Your task to perform on an android device: Search for pizza restaurants on Maps Image 0: 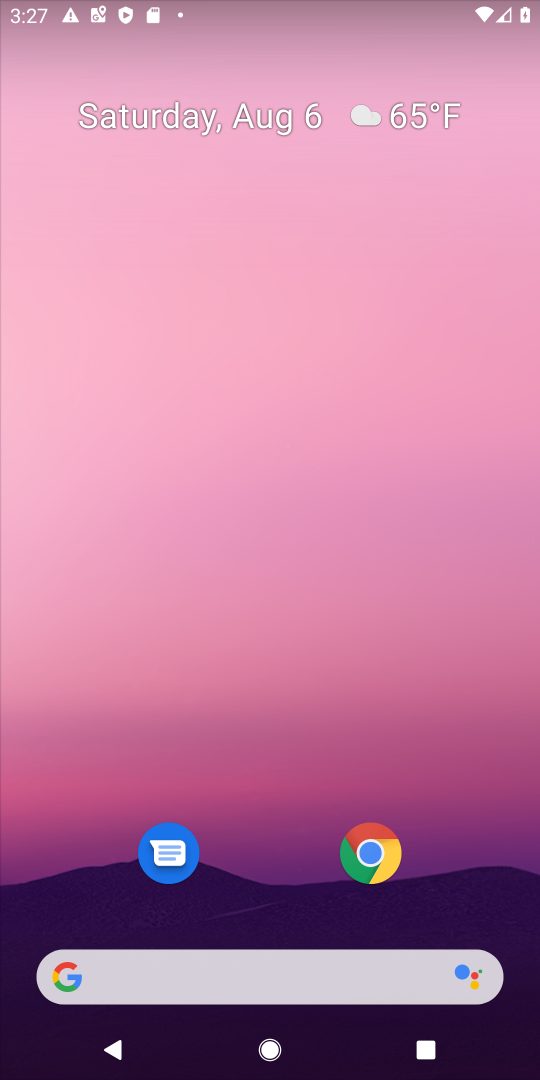
Step 0: drag from (311, 943) to (304, 65)
Your task to perform on an android device: Search for pizza restaurants on Maps Image 1: 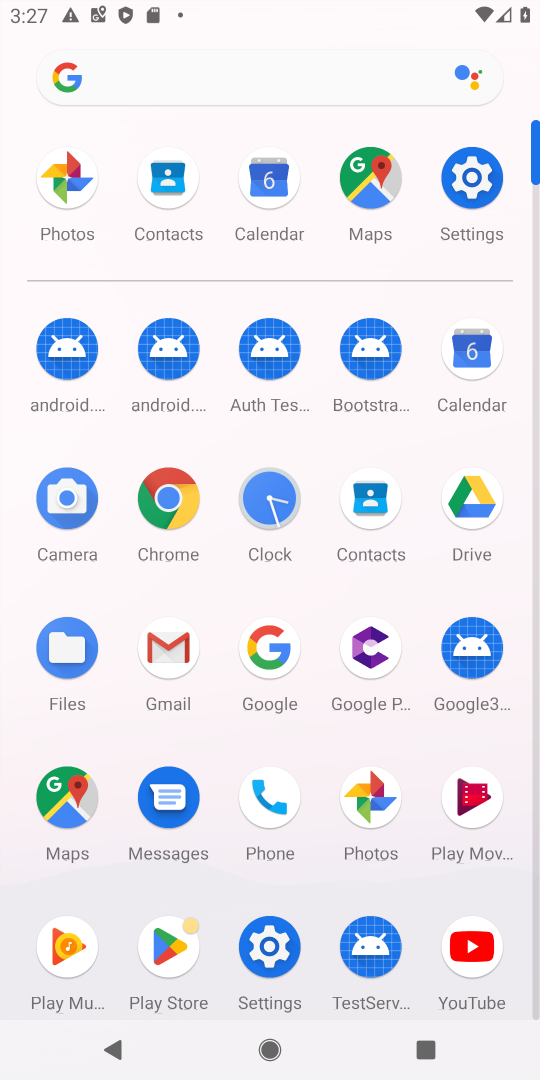
Step 1: click (372, 179)
Your task to perform on an android device: Search for pizza restaurants on Maps Image 2: 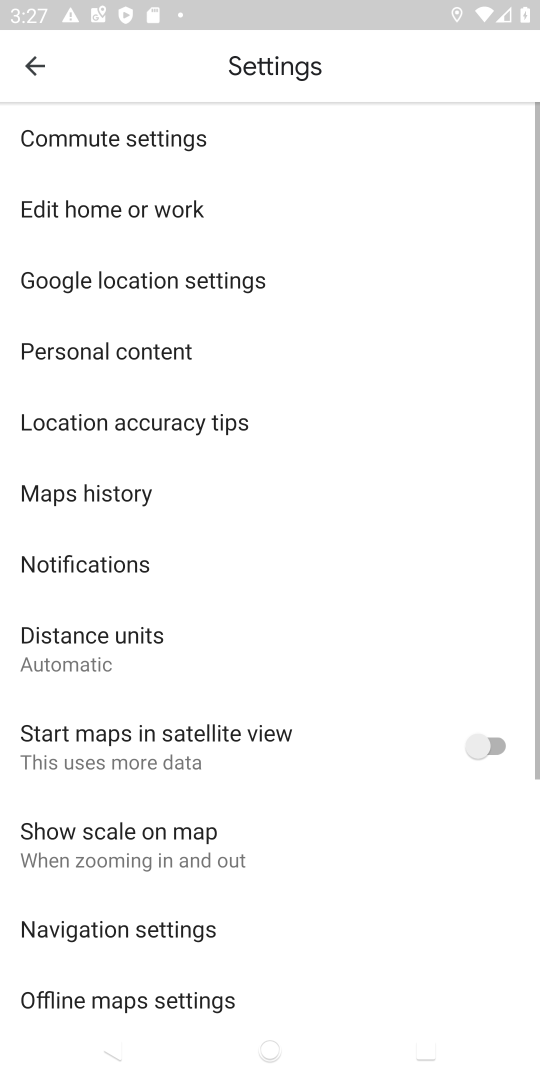
Step 2: click (27, 55)
Your task to perform on an android device: Search for pizza restaurants on Maps Image 3: 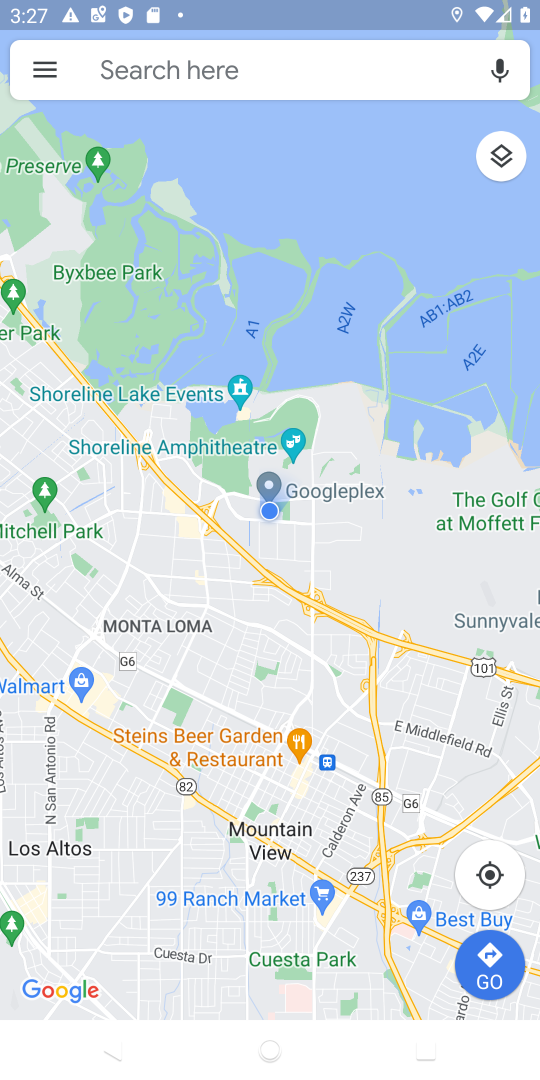
Step 3: click (269, 79)
Your task to perform on an android device: Search for pizza restaurants on Maps Image 4: 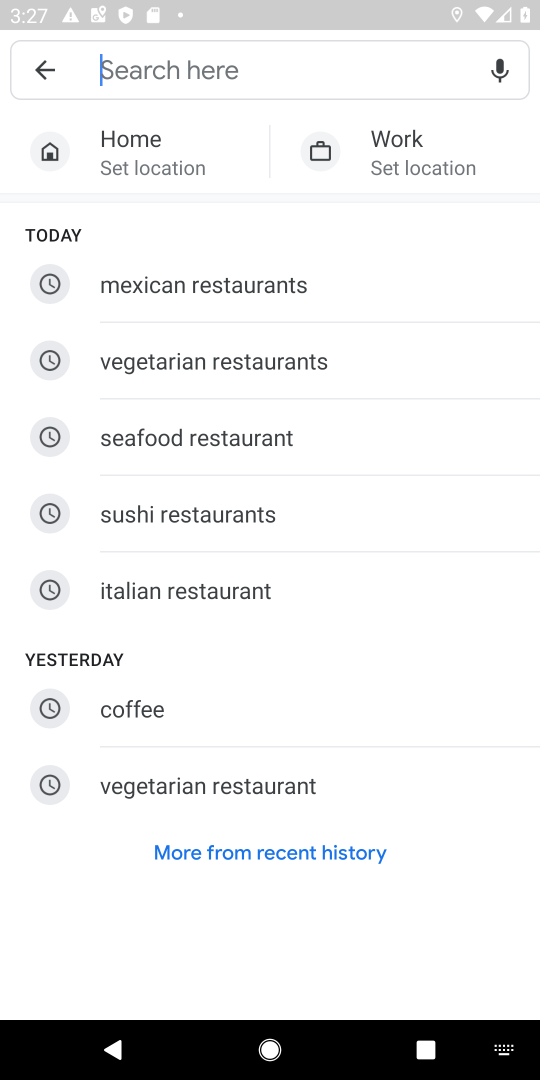
Step 4: type "pizza restaurants"
Your task to perform on an android device: Search for pizza restaurants on Maps Image 5: 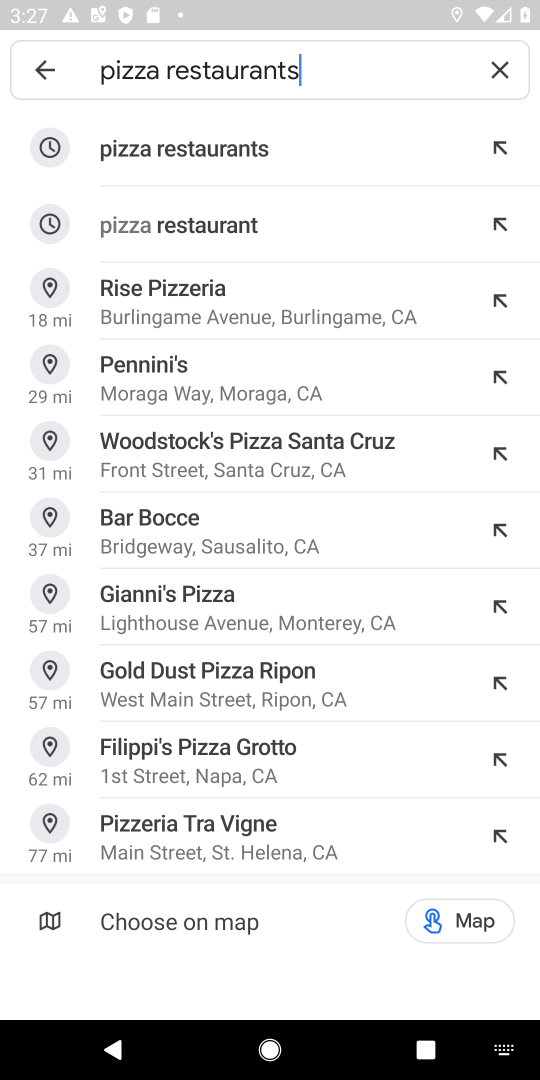
Step 5: click (210, 151)
Your task to perform on an android device: Search for pizza restaurants on Maps Image 6: 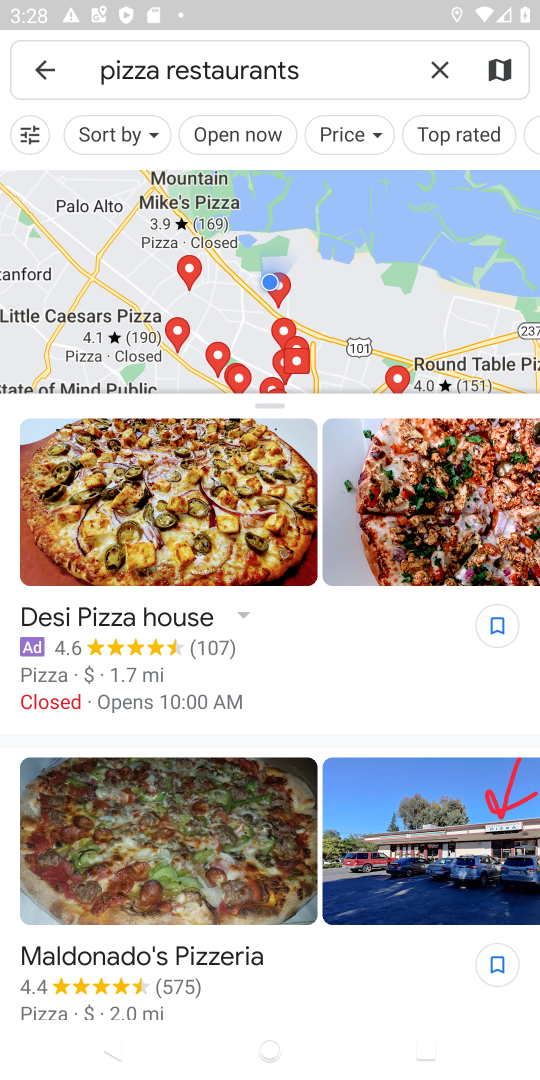
Step 6: task complete